Your task to perform on an android device: empty trash in the gmail app Image 0: 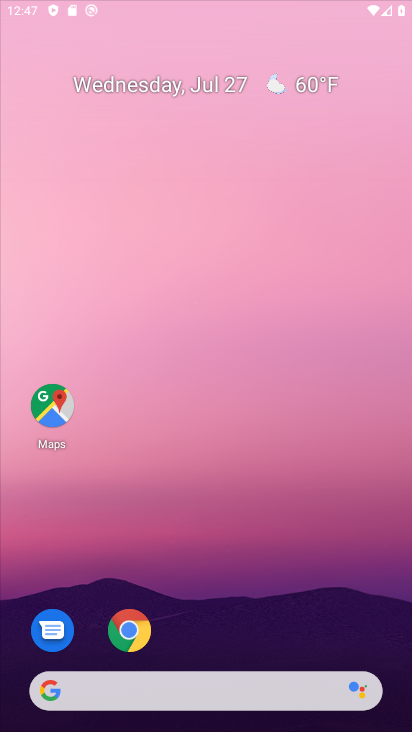
Step 0: press home button
Your task to perform on an android device: empty trash in the gmail app Image 1: 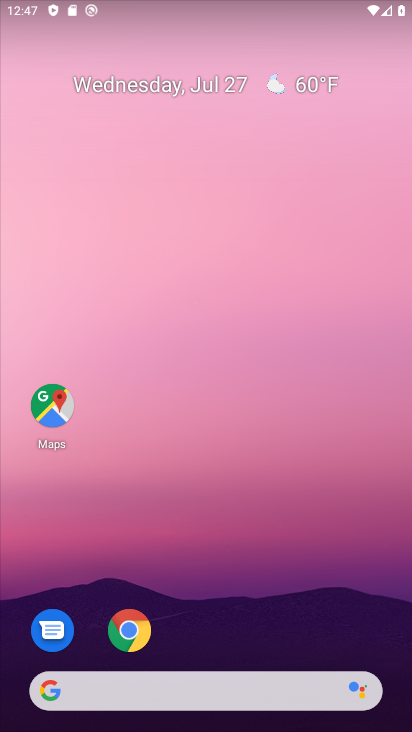
Step 1: drag from (240, 653) to (265, 68)
Your task to perform on an android device: empty trash in the gmail app Image 2: 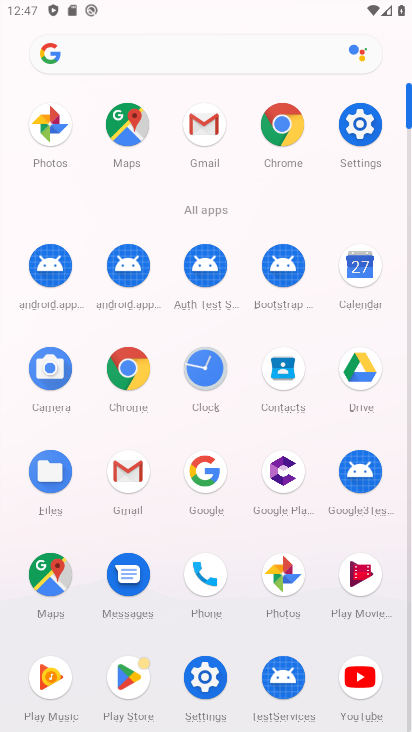
Step 2: click (204, 141)
Your task to perform on an android device: empty trash in the gmail app Image 3: 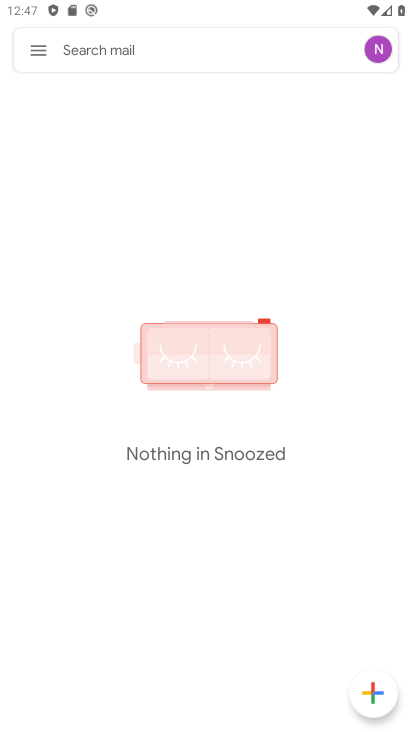
Step 3: click (35, 56)
Your task to perform on an android device: empty trash in the gmail app Image 4: 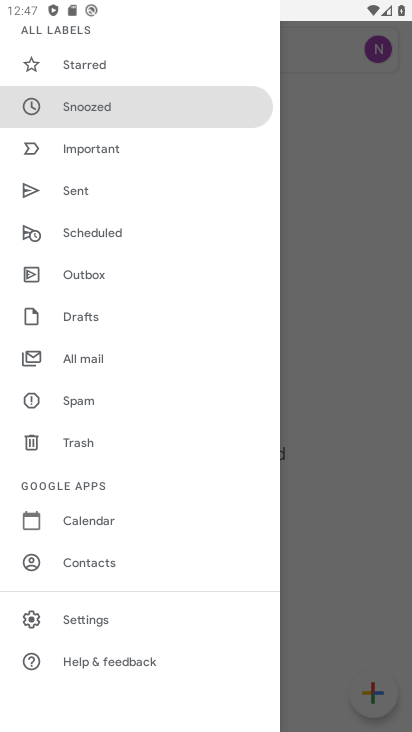
Step 4: click (77, 449)
Your task to perform on an android device: empty trash in the gmail app Image 5: 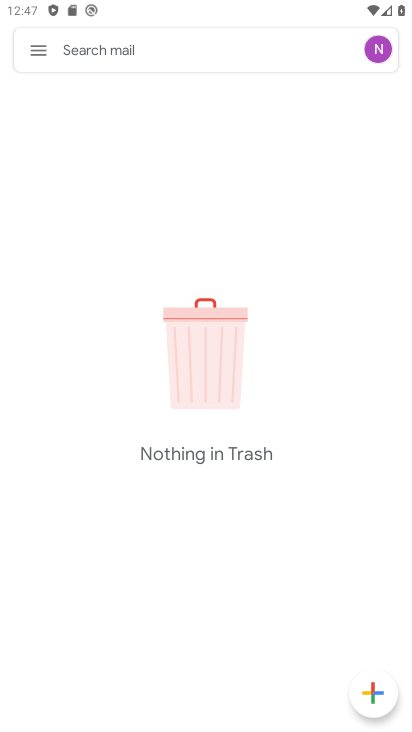
Step 5: task complete